Your task to perform on an android device: turn off priority inbox in the gmail app Image 0: 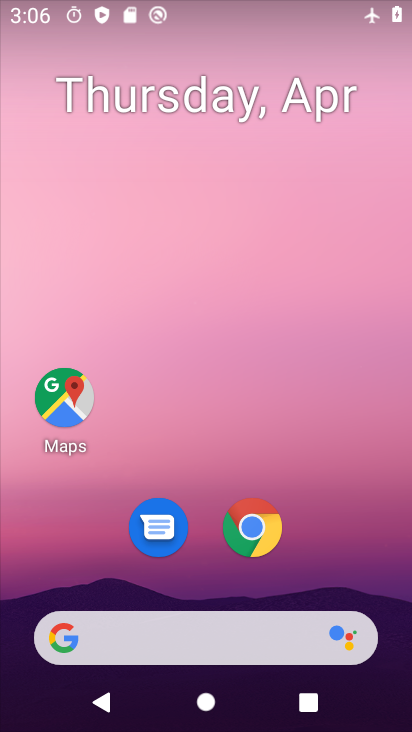
Step 0: drag from (330, 537) to (321, 174)
Your task to perform on an android device: turn off priority inbox in the gmail app Image 1: 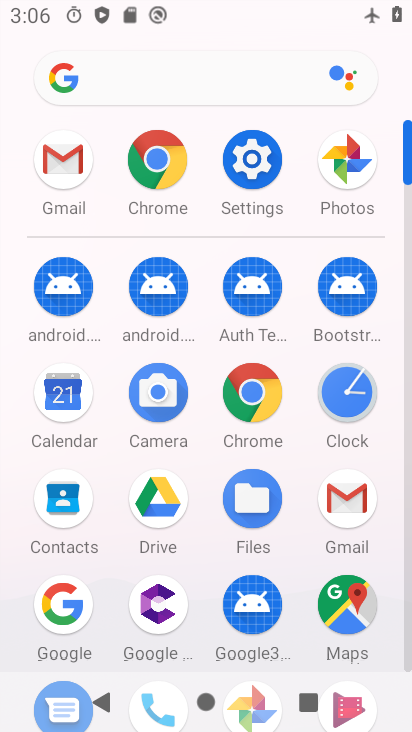
Step 1: click (358, 499)
Your task to perform on an android device: turn off priority inbox in the gmail app Image 2: 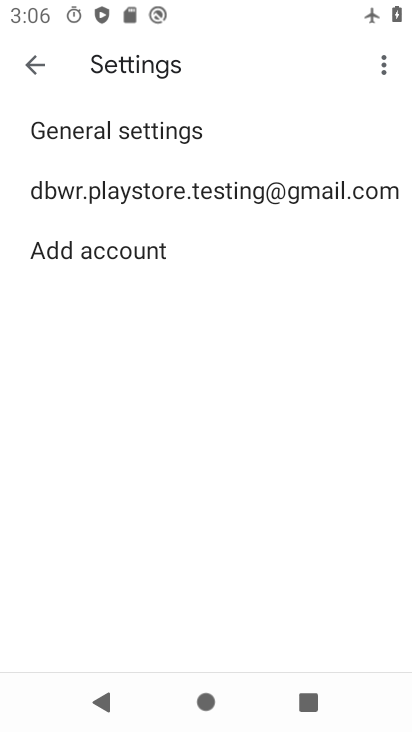
Step 2: click (191, 197)
Your task to perform on an android device: turn off priority inbox in the gmail app Image 3: 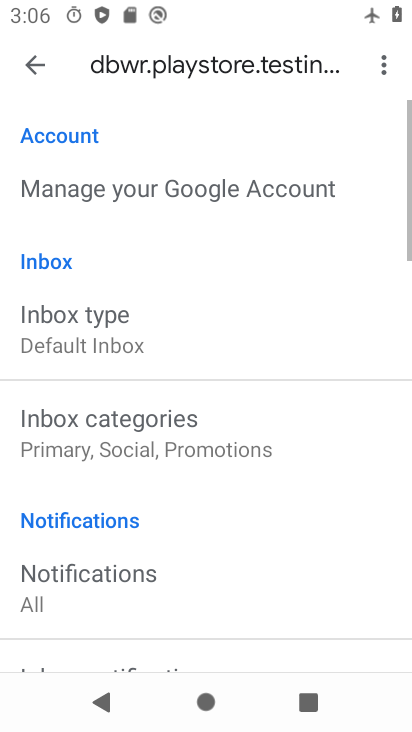
Step 3: drag from (153, 519) to (210, 175)
Your task to perform on an android device: turn off priority inbox in the gmail app Image 4: 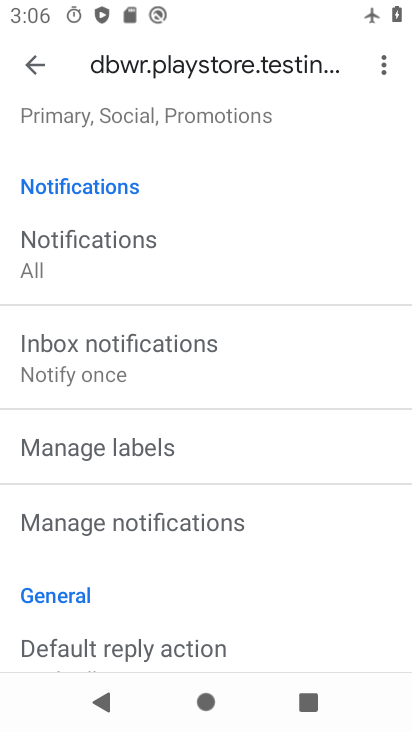
Step 4: drag from (135, 487) to (211, 223)
Your task to perform on an android device: turn off priority inbox in the gmail app Image 5: 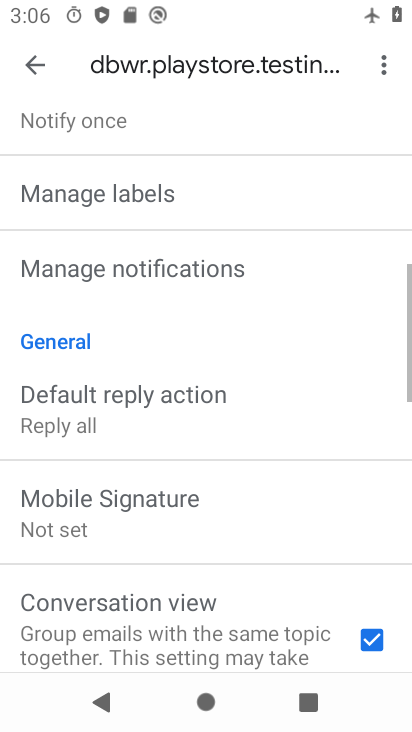
Step 5: drag from (211, 223) to (180, 592)
Your task to perform on an android device: turn off priority inbox in the gmail app Image 6: 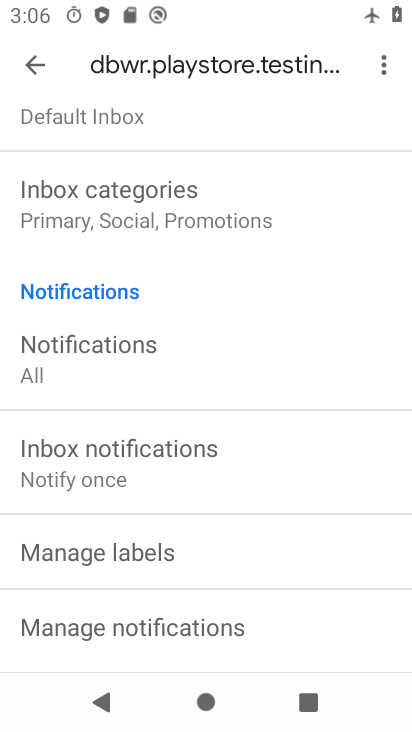
Step 6: drag from (201, 353) to (201, 597)
Your task to perform on an android device: turn off priority inbox in the gmail app Image 7: 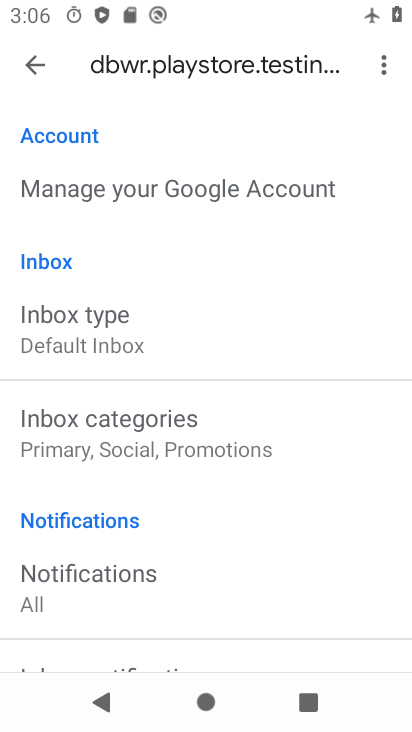
Step 7: click (104, 333)
Your task to perform on an android device: turn off priority inbox in the gmail app Image 8: 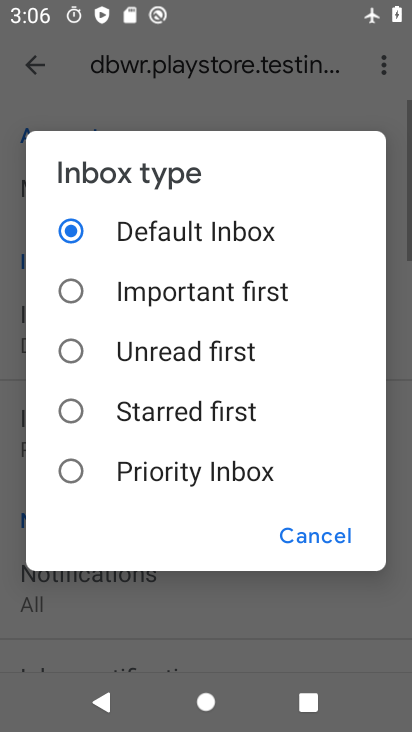
Step 8: task complete